Your task to perform on an android device: Show me popular videos on Youtube Image 0: 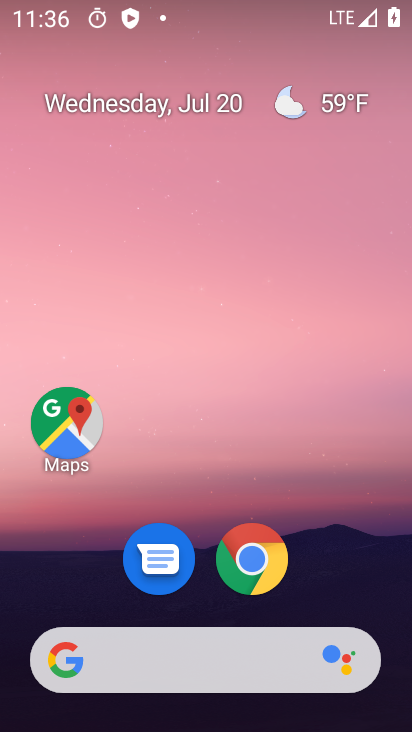
Step 0: drag from (170, 6) to (16, 124)
Your task to perform on an android device: Show me popular videos on Youtube Image 1: 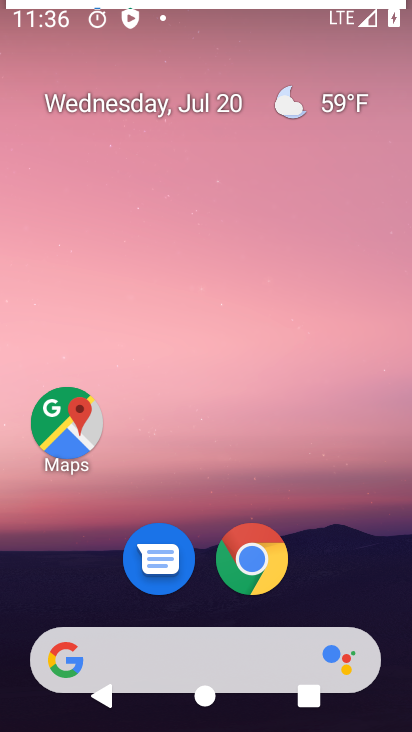
Step 1: drag from (184, 595) to (247, 0)
Your task to perform on an android device: Show me popular videos on Youtube Image 2: 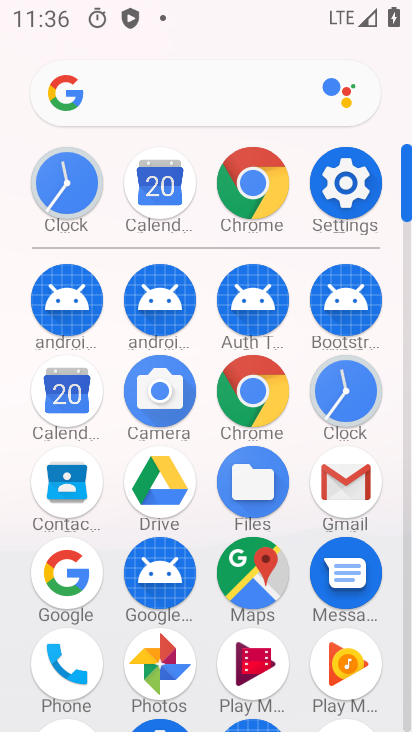
Step 2: drag from (173, 581) to (254, 41)
Your task to perform on an android device: Show me popular videos on Youtube Image 3: 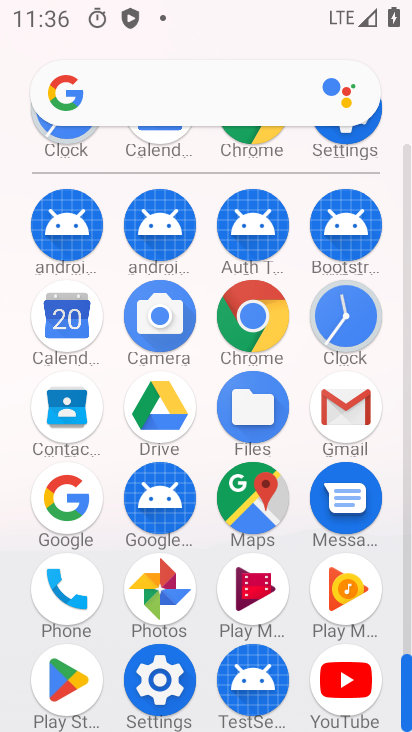
Step 3: click (351, 677)
Your task to perform on an android device: Show me popular videos on Youtube Image 4: 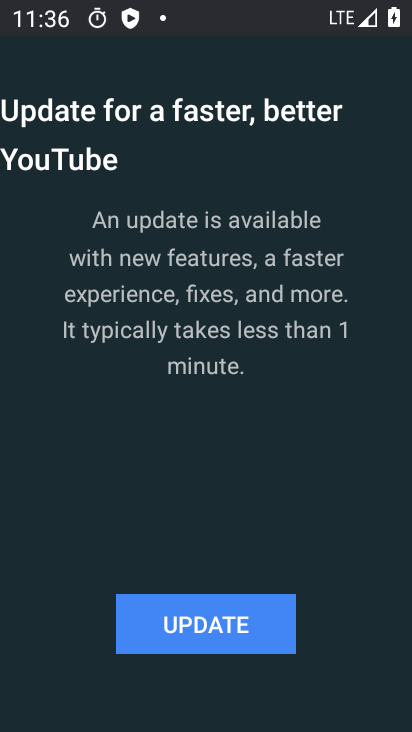
Step 4: task complete